Your task to perform on an android device: Go to display settings Image 0: 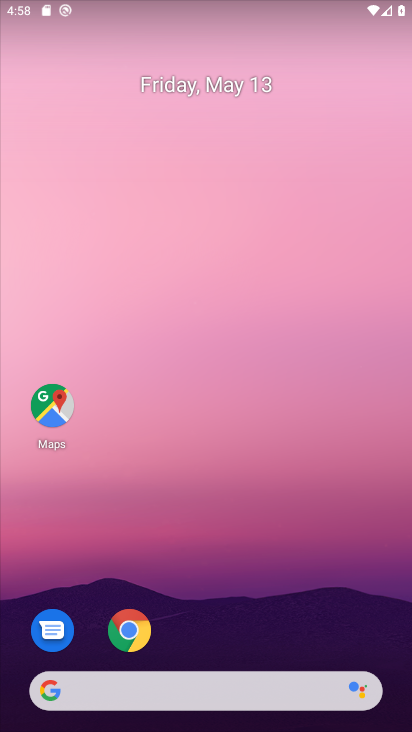
Step 0: drag from (279, 575) to (338, 177)
Your task to perform on an android device: Go to display settings Image 1: 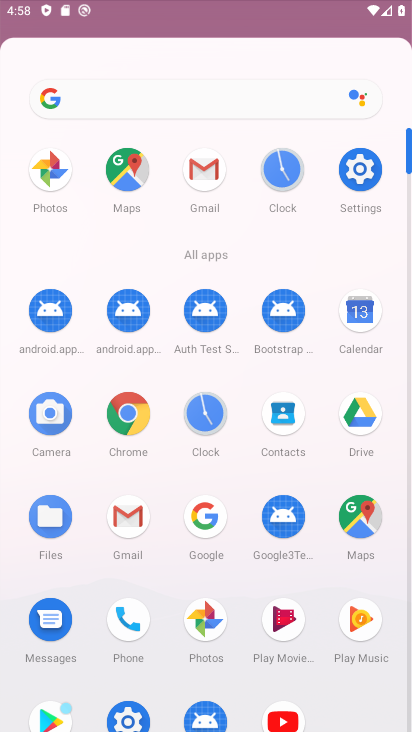
Step 1: drag from (290, 700) to (326, 258)
Your task to perform on an android device: Go to display settings Image 2: 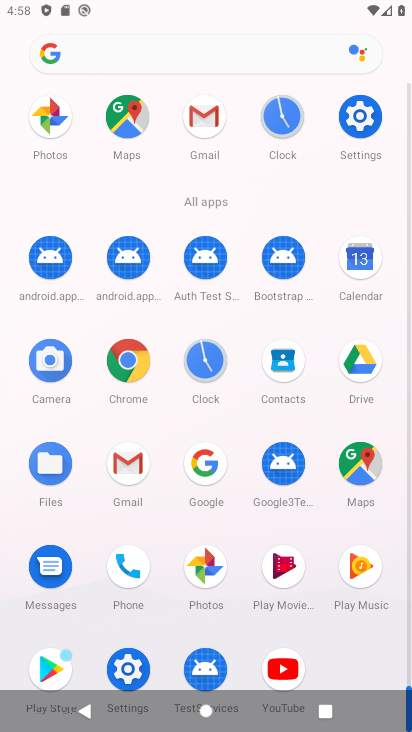
Step 2: click (353, 119)
Your task to perform on an android device: Go to display settings Image 3: 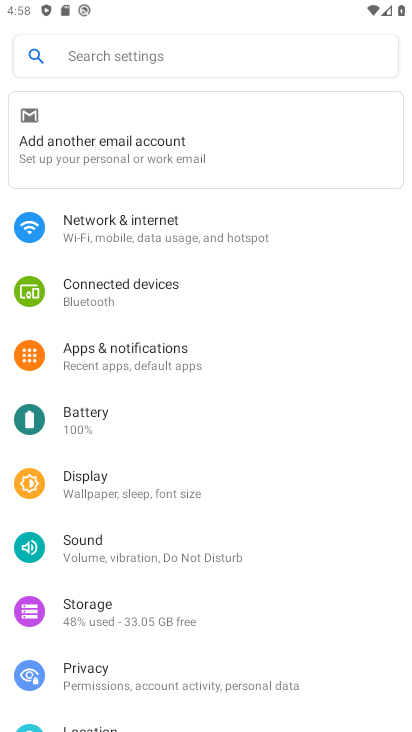
Step 3: click (110, 476)
Your task to perform on an android device: Go to display settings Image 4: 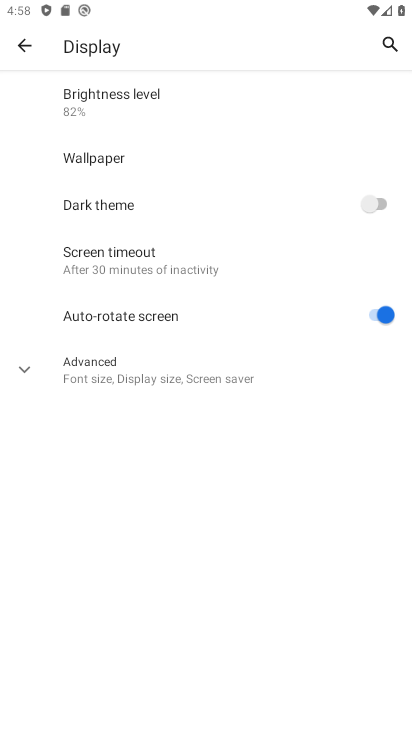
Step 4: task complete